Your task to perform on an android device: empty trash in the gmail app Image 0: 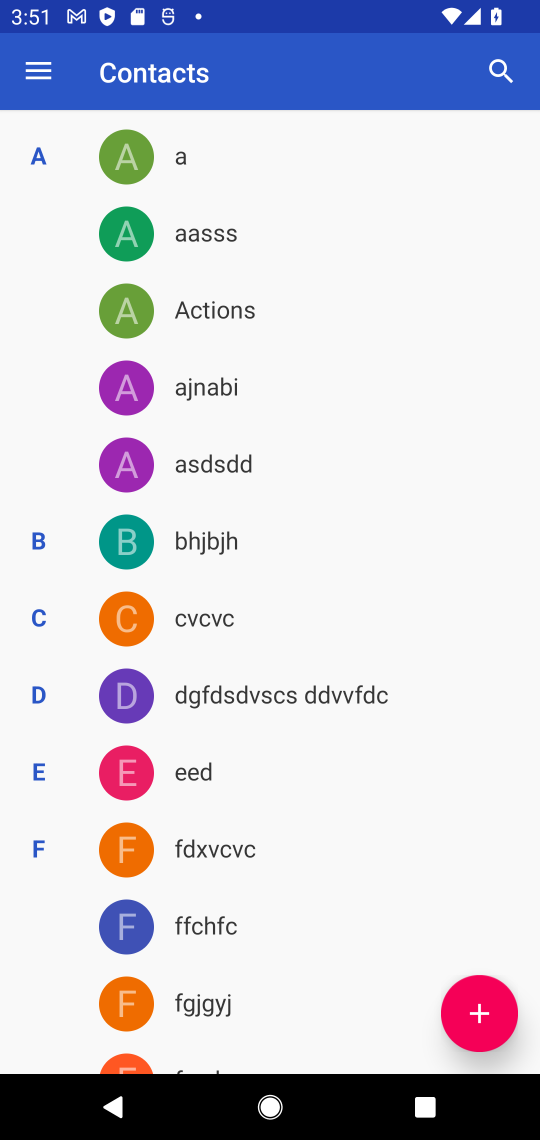
Step 0: press home button
Your task to perform on an android device: empty trash in the gmail app Image 1: 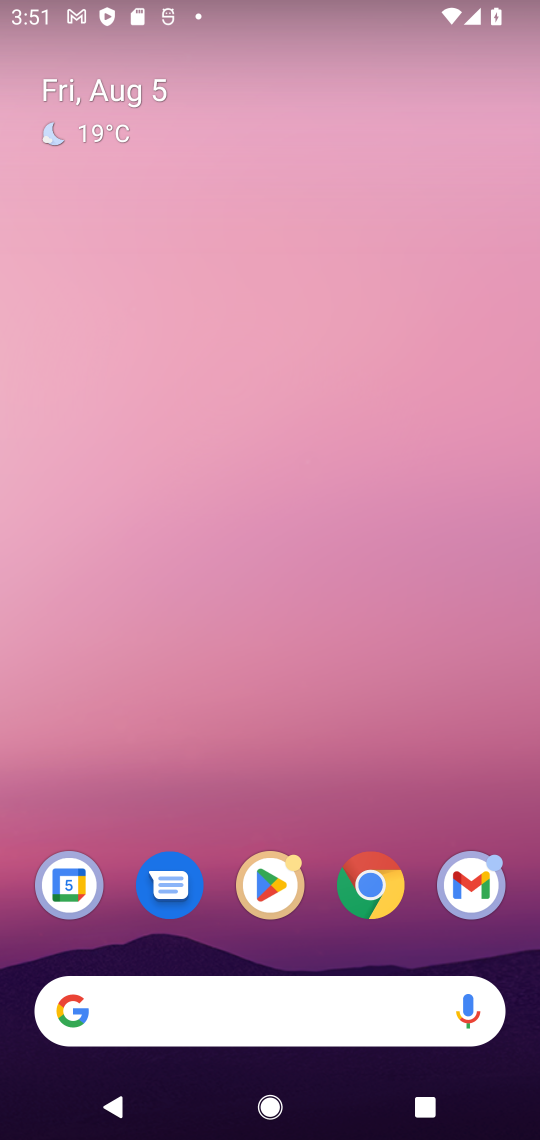
Step 1: drag from (332, 745) to (332, 85)
Your task to perform on an android device: empty trash in the gmail app Image 2: 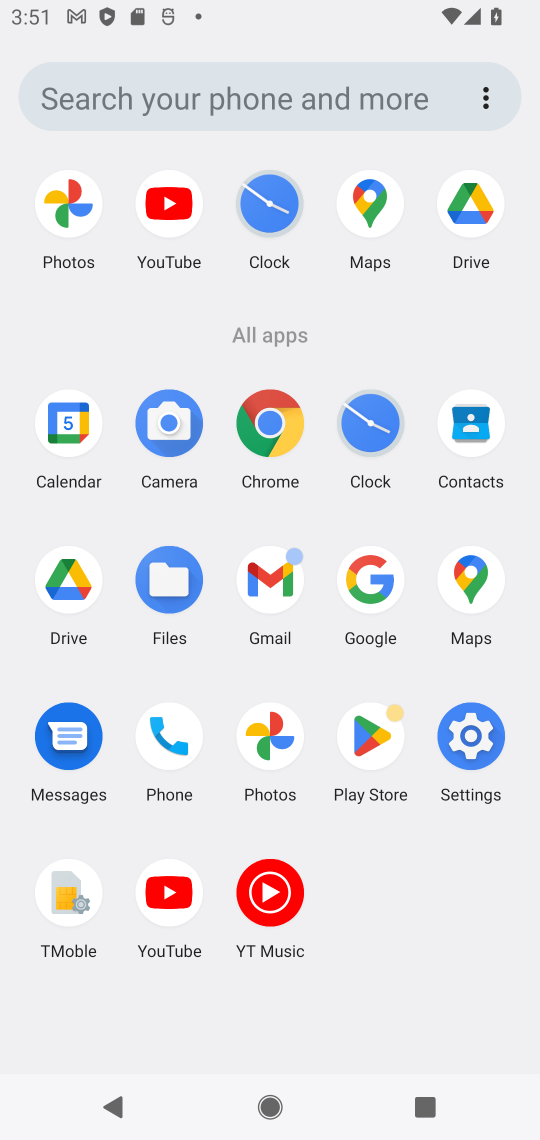
Step 2: click (275, 592)
Your task to perform on an android device: empty trash in the gmail app Image 3: 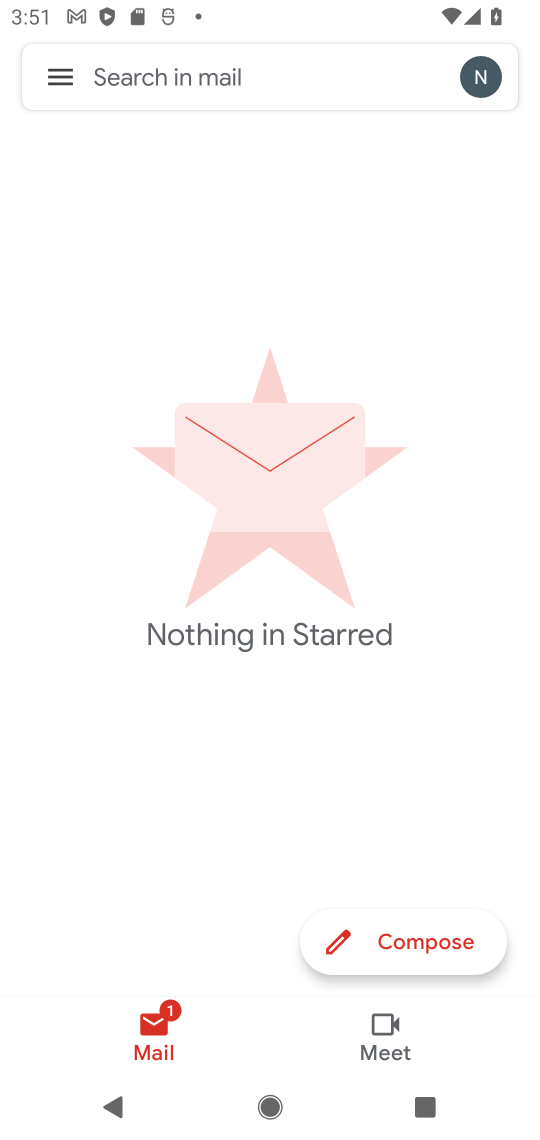
Step 3: click (60, 80)
Your task to perform on an android device: empty trash in the gmail app Image 4: 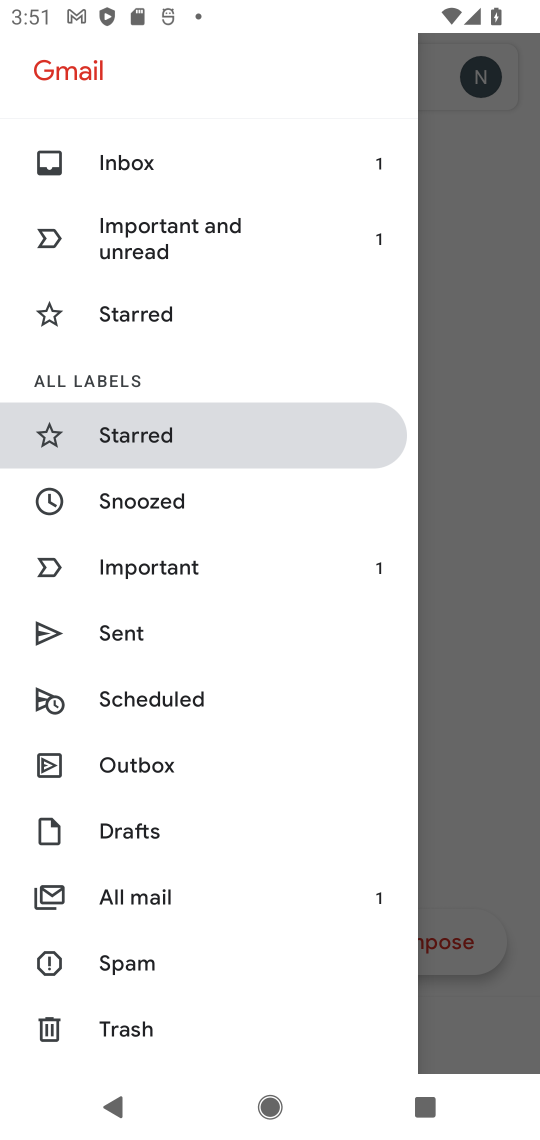
Step 4: drag from (145, 966) to (142, 570)
Your task to perform on an android device: empty trash in the gmail app Image 5: 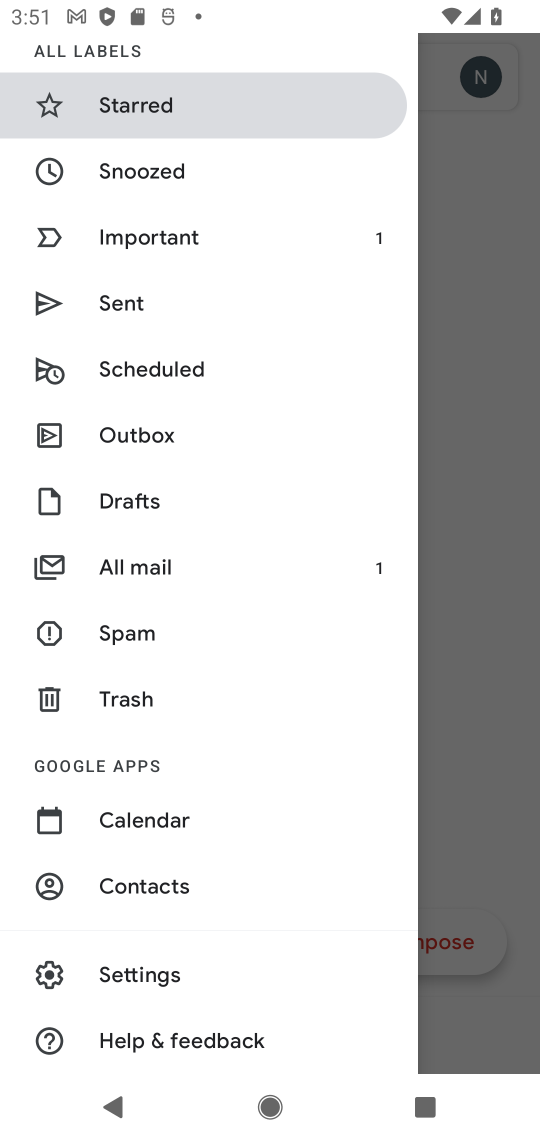
Step 5: click (135, 694)
Your task to perform on an android device: empty trash in the gmail app Image 6: 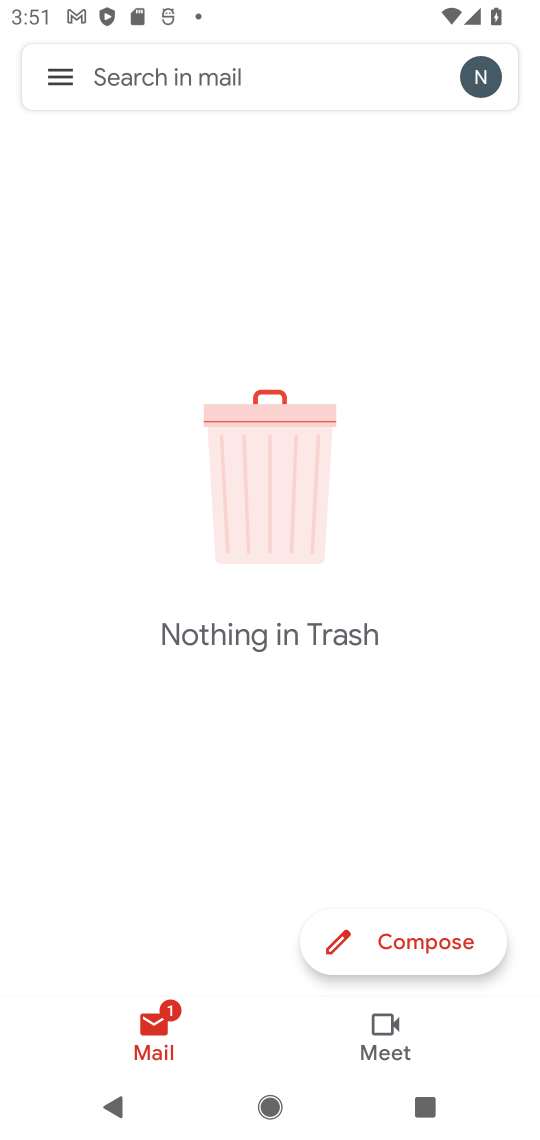
Step 6: task complete